Your task to perform on an android device: Do I have any events tomorrow? Image 0: 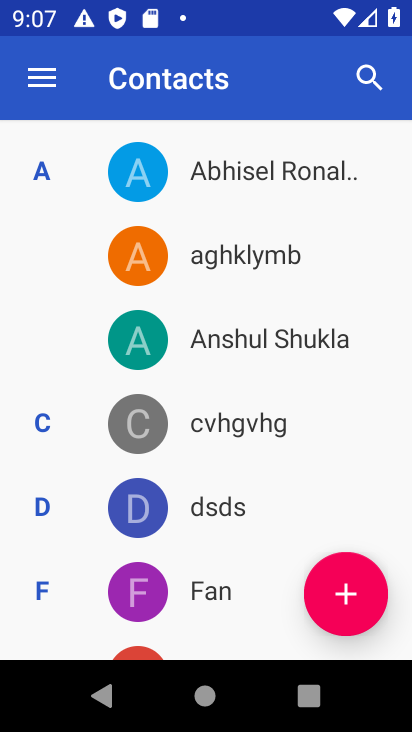
Step 0: press home button
Your task to perform on an android device: Do I have any events tomorrow? Image 1: 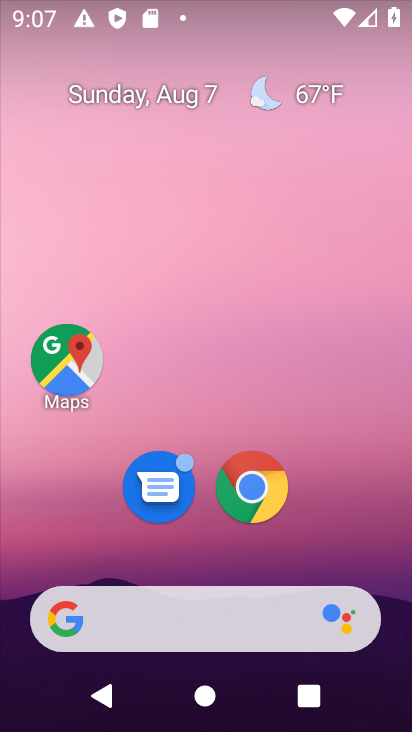
Step 1: drag from (400, 693) to (356, 46)
Your task to perform on an android device: Do I have any events tomorrow? Image 2: 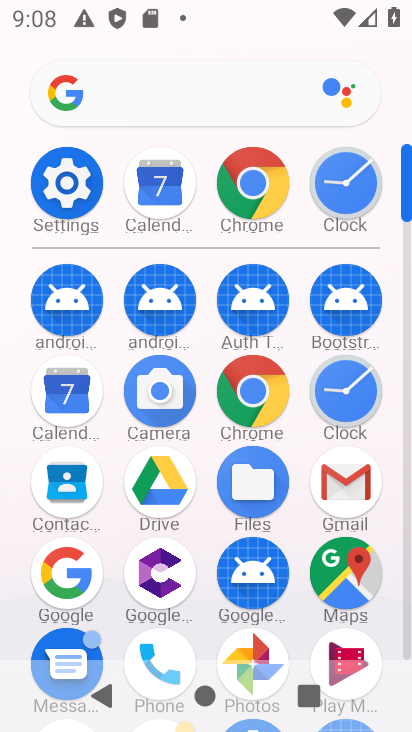
Step 2: click (81, 398)
Your task to perform on an android device: Do I have any events tomorrow? Image 3: 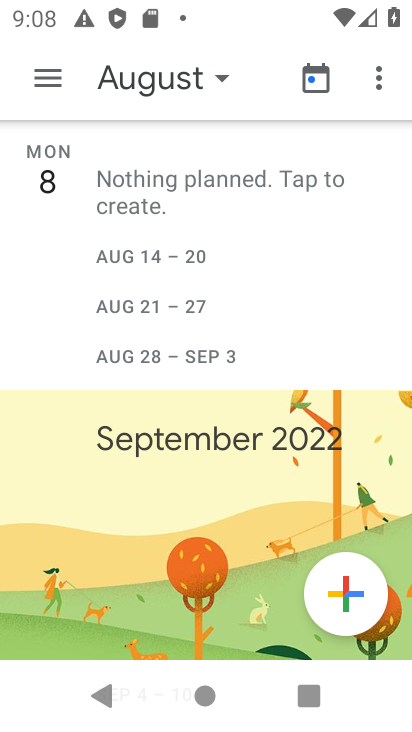
Step 3: task complete